Your task to perform on an android device: search for starred emails in the gmail app Image 0: 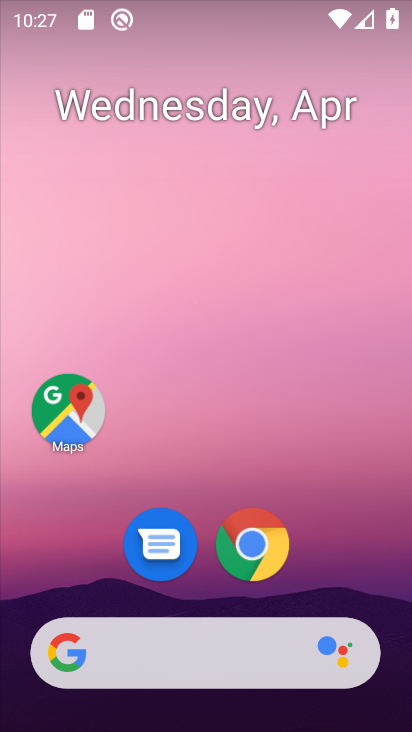
Step 0: drag from (231, 54) to (238, 1)
Your task to perform on an android device: search for starred emails in the gmail app Image 1: 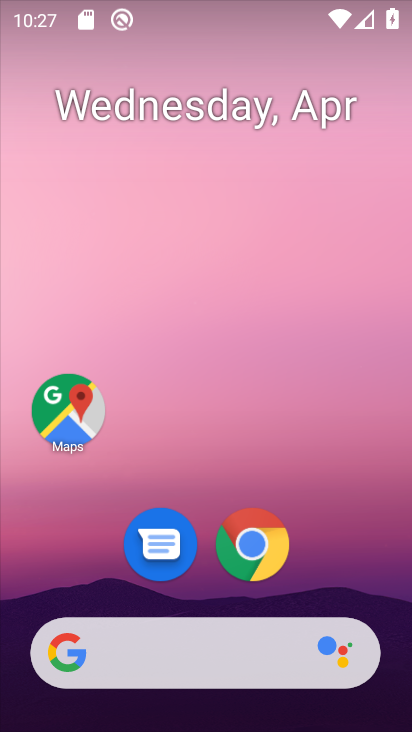
Step 1: click (308, 270)
Your task to perform on an android device: search for starred emails in the gmail app Image 2: 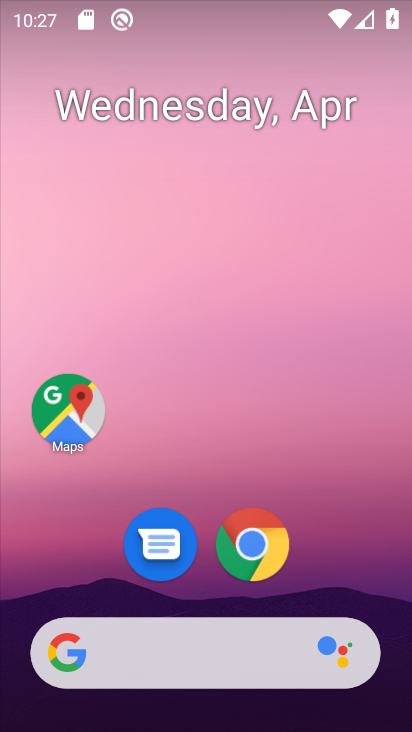
Step 2: drag from (323, 573) to (398, 429)
Your task to perform on an android device: search for starred emails in the gmail app Image 3: 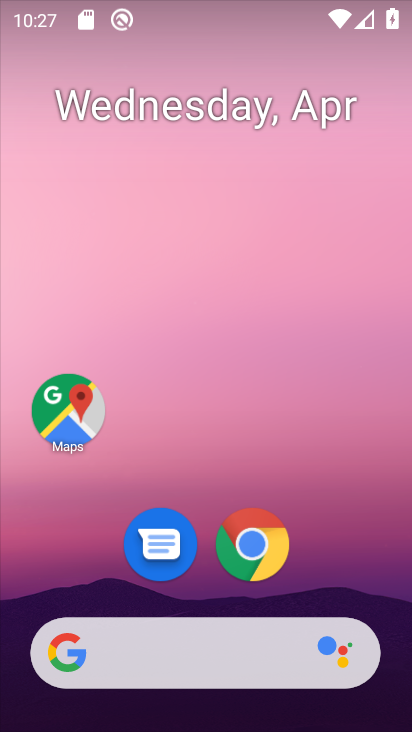
Step 3: click (291, 18)
Your task to perform on an android device: search for starred emails in the gmail app Image 4: 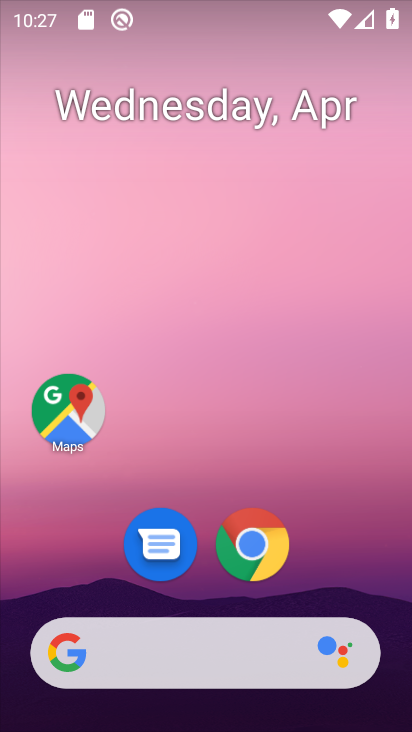
Step 4: drag from (353, 442) to (26, 567)
Your task to perform on an android device: search for starred emails in the gmail app Image 5: 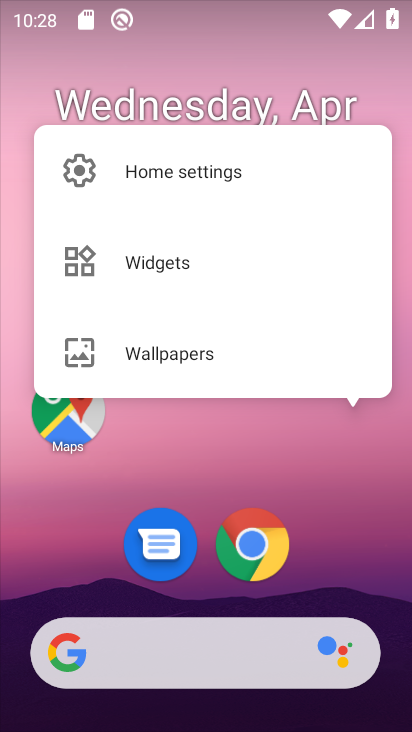
Step 5: click (213, 492)
Your task to perform on an android device: search for starred emails in the gmail app Image 6: 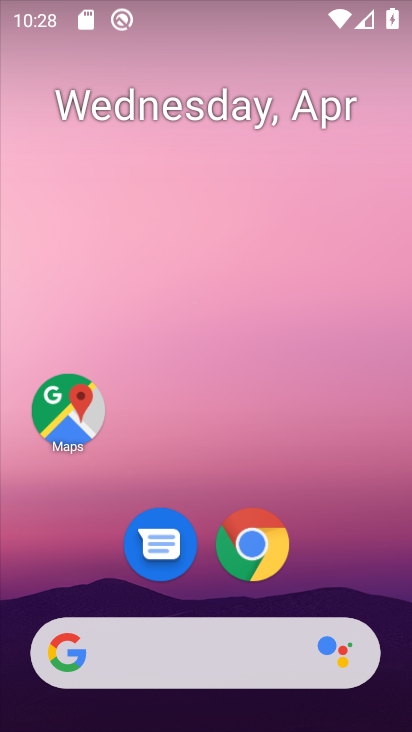
Step 6: drag from (321, 565) to (395, 1)
Your task to perform on an android device: search for starred emails in the gmail app Image 7: 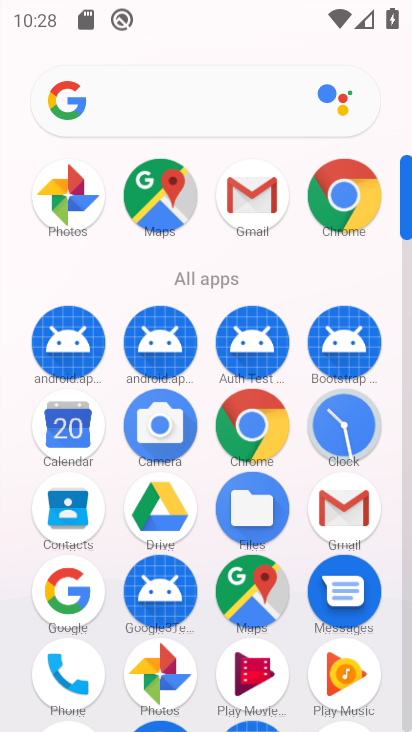
Step 7: click (263, 204)
Your task to perform on an android device: search for starred emails in the gmail app Image 8: 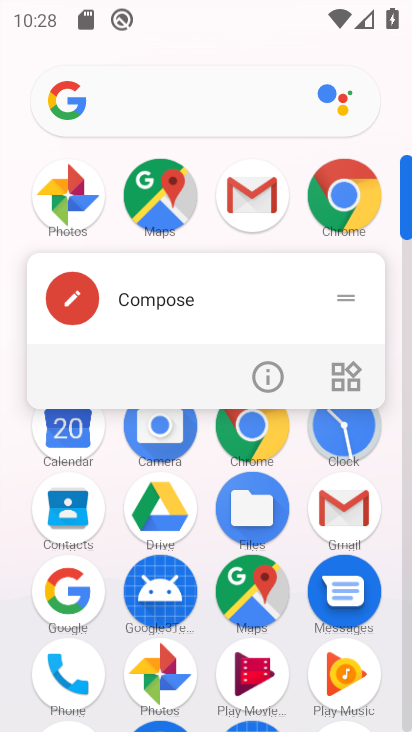
Step 8: click (266, 170)
Your task to perform on an android device: search for starred emails in the gmail app Image 9: 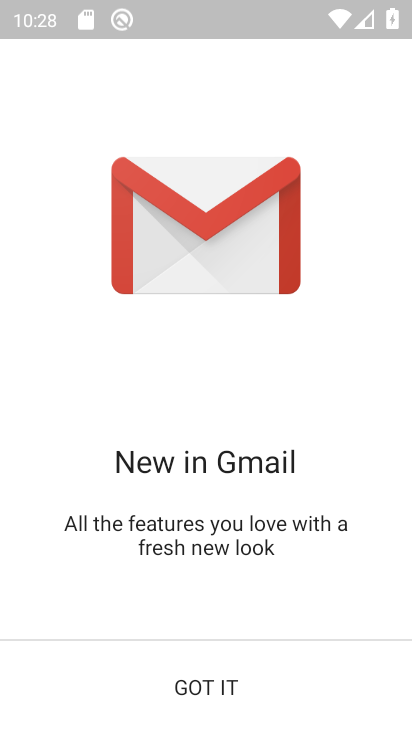
Step 9: click (234, 702)
Your task to perform on an android device: search for starred emails in the gmail app Image 10: 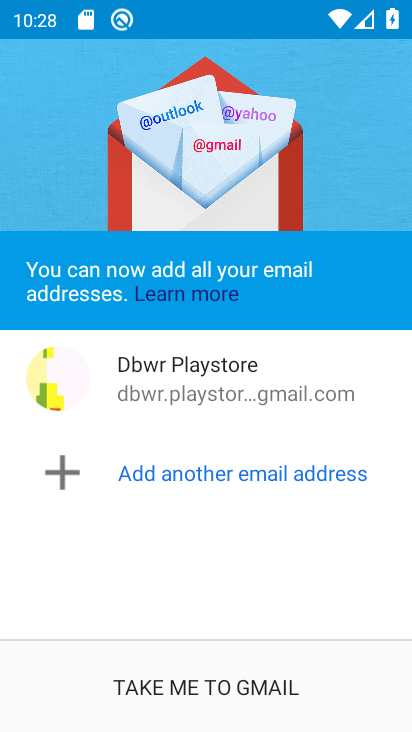
Step 10: click (234, 702)
Your task to perform on an android device: search for starred emails in the gmail app Image 11: 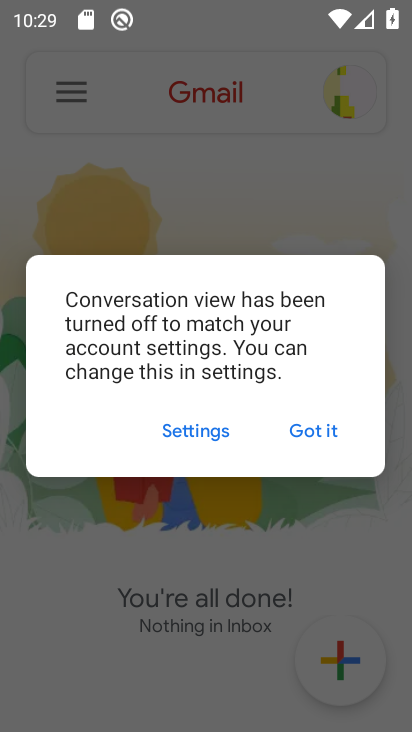
Step 11: click (322, 433)
Your task to perform on an android device: search for starred emails in the gmail app Image 12: 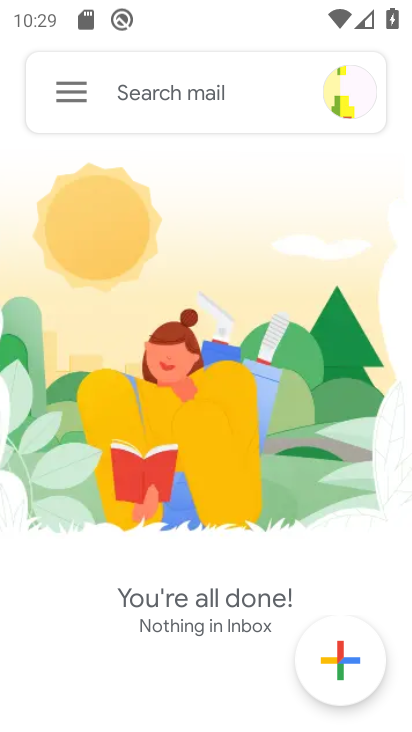
Step 12: click (76, 91)
Your task to perform on an android device: search for starred emails in the gmail app Image 13: 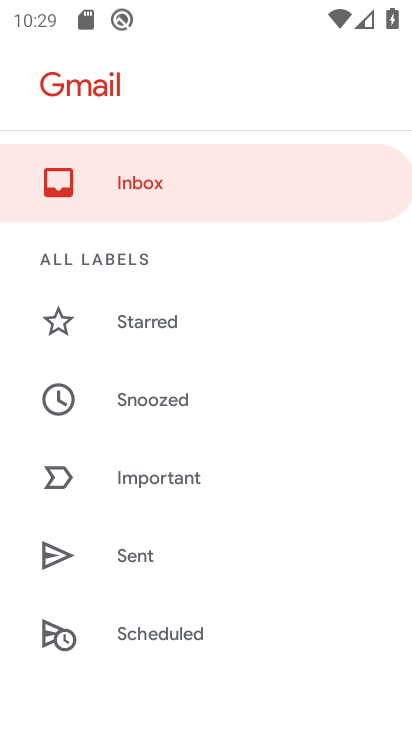
Step 13: click (123, 323)
Your task to perform on an android device: search for starred emails in the gmail app Image 14: 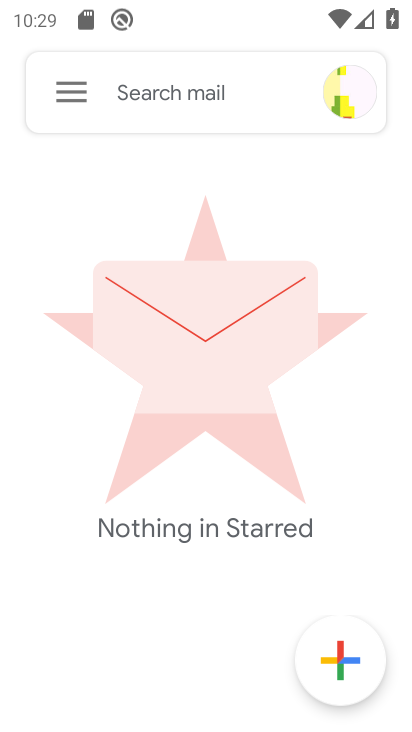
Step 14: task complete